Your task to perform on an android device: refresh tabs in the chrome app Image 0: 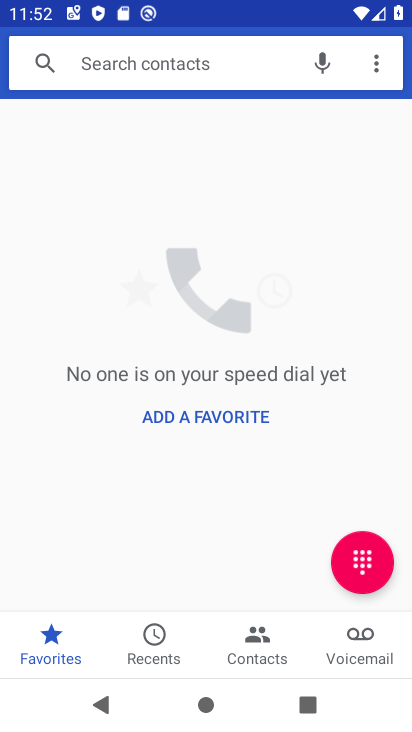
Step 0: press home button
Your task to perform on an android device: refresh tabs in the chrome app Image 1: 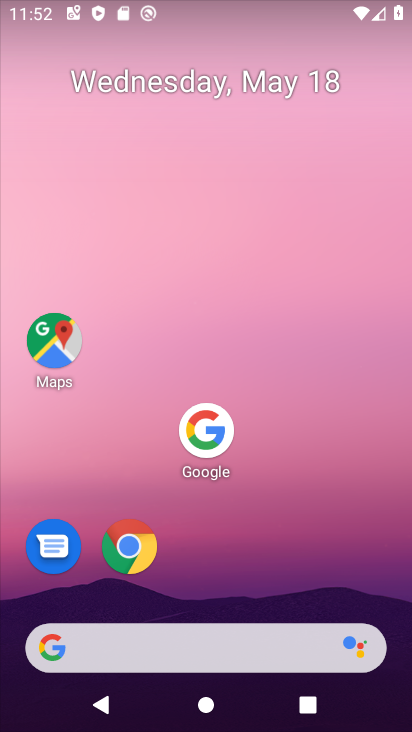
Step 1: click (131, 548)
Your task to perform on an android device: refresh tabs in the chrome app Image 2: 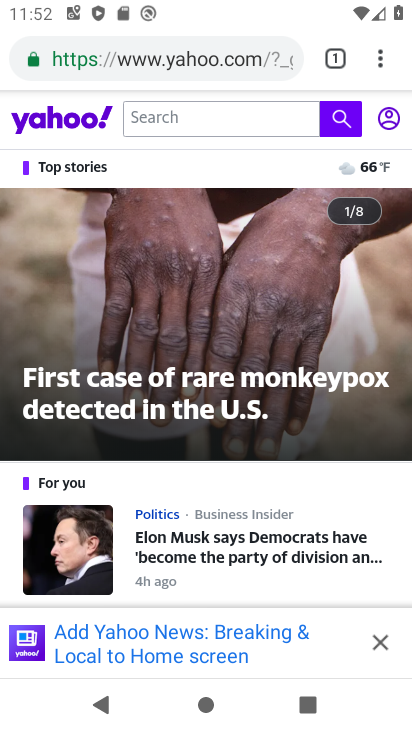
Step 2: click (373, 60)
Your task to perform on an android device: refresh tabs in the chrome app Image 3: 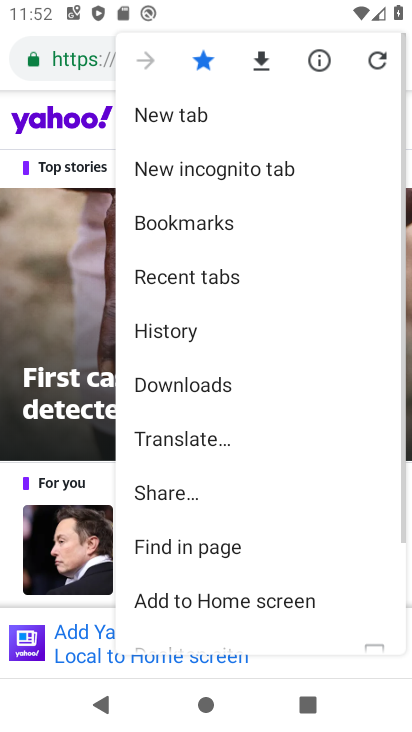
Step 3: click (376, 66)
Your task to perform on an android device: refresh tabs in the chrome app Image 4: 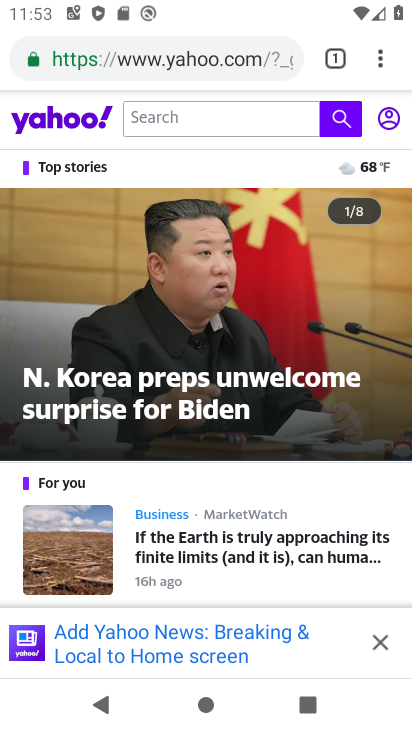
Step 4: task complete